Your task to perform on an android device: Show me productivity apps on the Play Store Image 0: 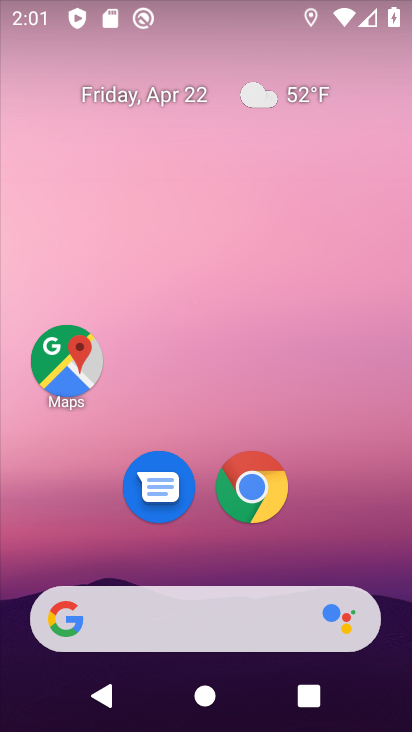
Step 0: drag from (199, 555) to (244, 1)
Your task to perform on an android device: Show me productivity apps on the Play Store Image 1: 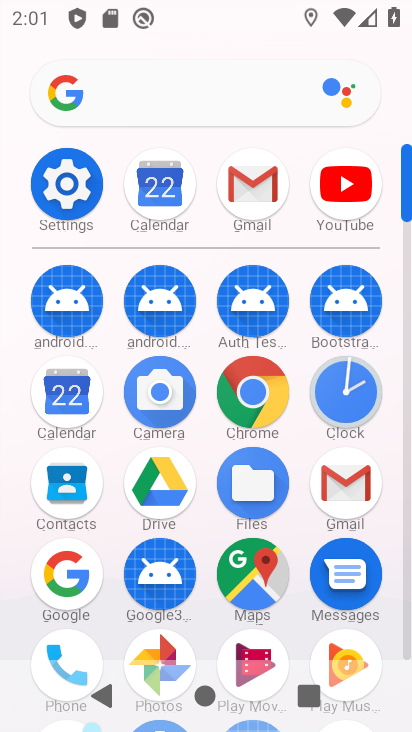
Step 1: drag from (204, 593) to (254, 350)
Your task to perform on an android device: Show me productivity apps on the Play Store Image 2: 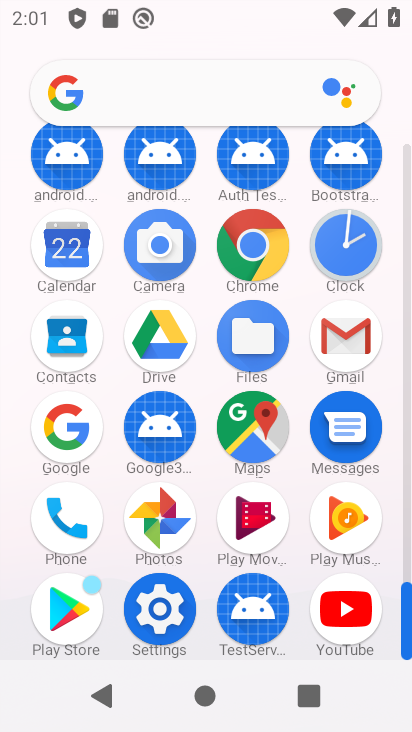
Step 2: click (68, 599)
Your task to perform on an android device: Show me productivity apps on the Play Store Image 3: 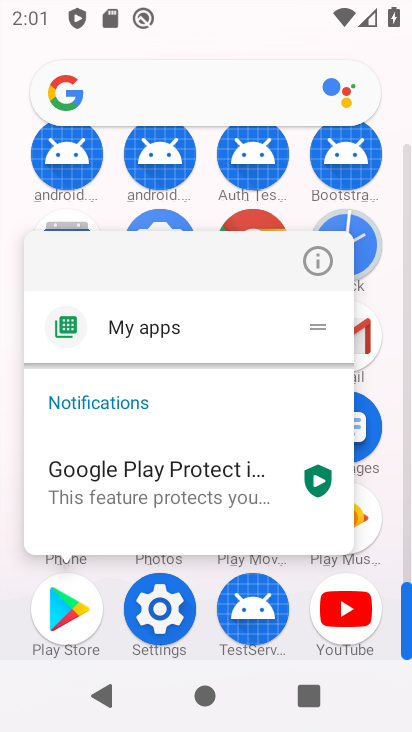
Step 3: click (78, 597)
Your task to perform on an android device: Show me productivity apps on the Play Store Image 4: 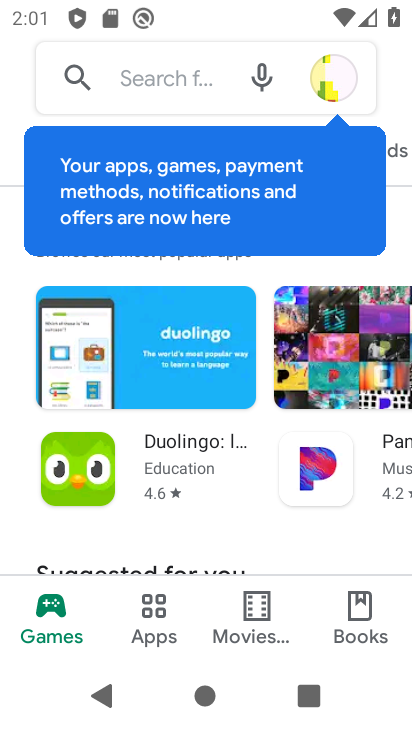
Step 4: click (146, 620)
Your task to perform on an android device: Show me productivity apps on the Play Store Image 5: 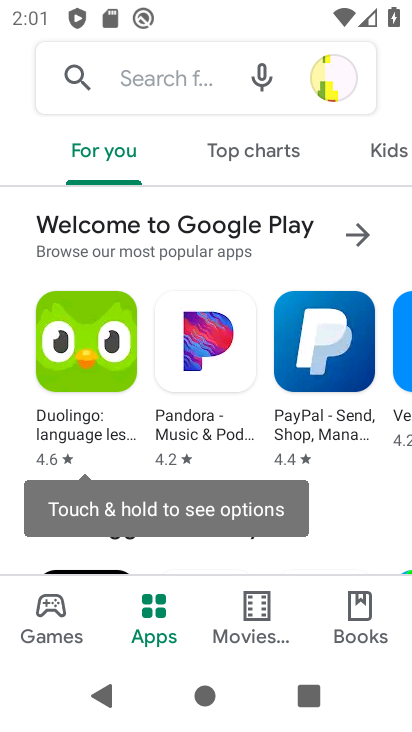
Step 5: drag from (339, 157) to (116, 120)
Your task to perform on an android device: Show me productivity apps on the Play Store Image 6: 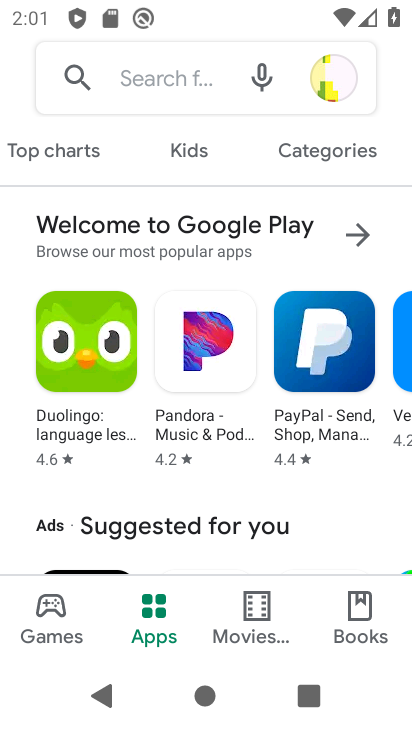
Step 6: drag from (350, 157) to (39, 141)
Your task to perform on an android device: Show me productivity apps on the Play Store Image 7: 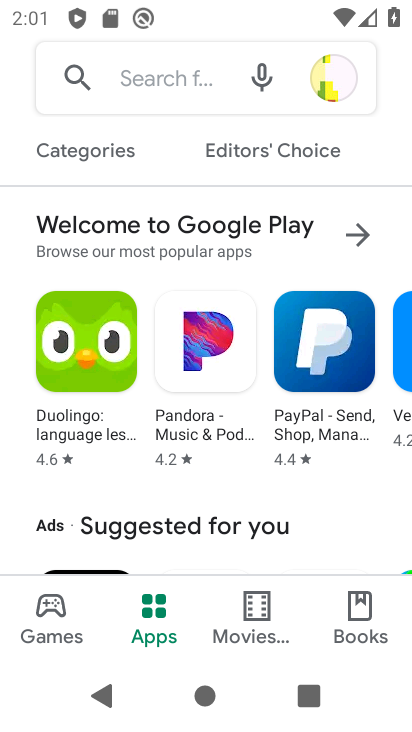
Step 7: drag from (342, 162) to (85, 151)
Your task to perform on an android device: Show me productivity apps on the Play Store Image 8: 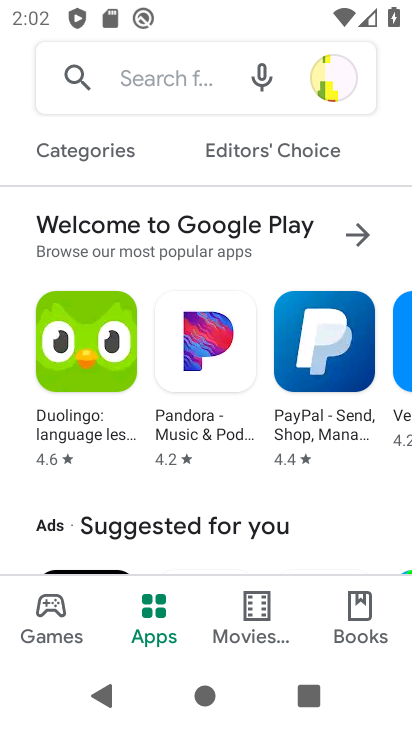
Step 8: click (82, 147)
Your task to perform on an android device: Show me productivity apps on the Play Store Image 9: 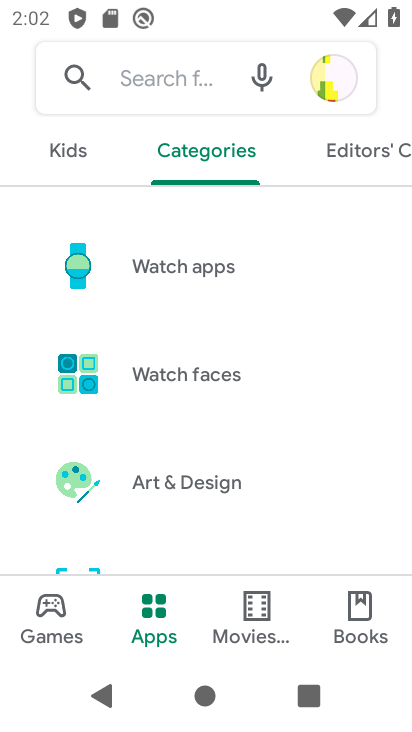
Step 9: drag from (152, 468) to (228, 194)
Your task to perform on an android device: Show me productivity apps on the Play Store Image 10: 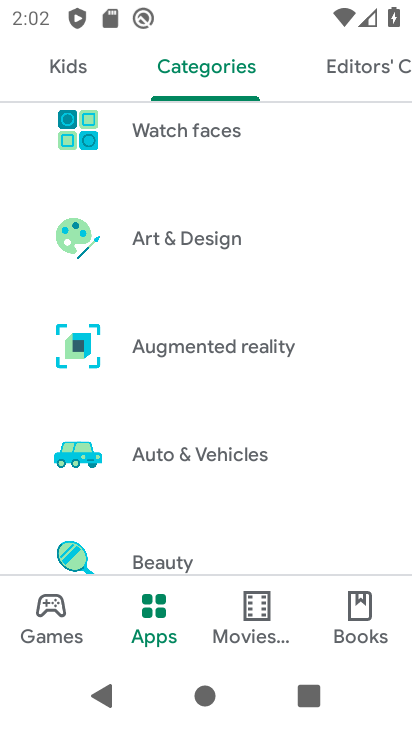
Step 10: drag from (199, 434) to (272, 145)
Your task to perform on an android device: Show me productivity apps on the Play Store Image 11: 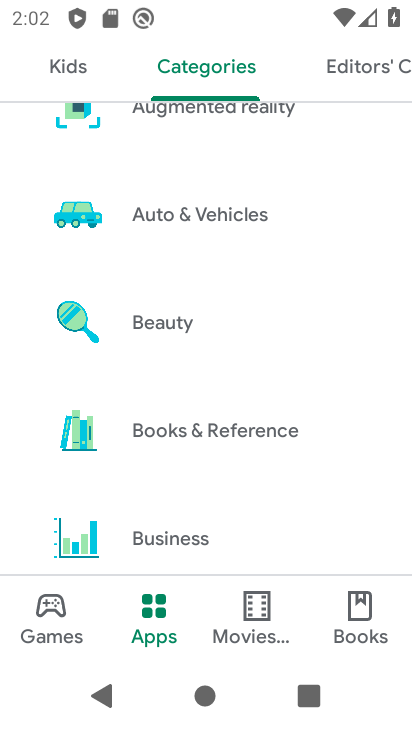
Step 11: drag from (197, 486) to (252, 111)
Your task to perform on an android device: Show me productivity apps on the Play Store Image 12: 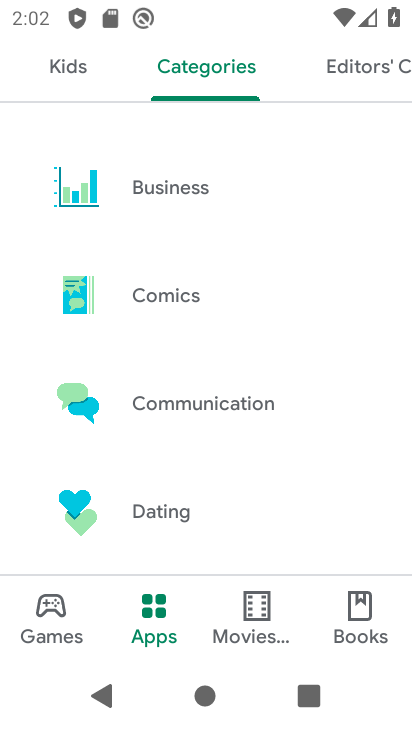
Step 12: drag from (157, 444) to (229, 169)
Your task to perform on an android device: Show me productivity apps on the Play Store Image 13: 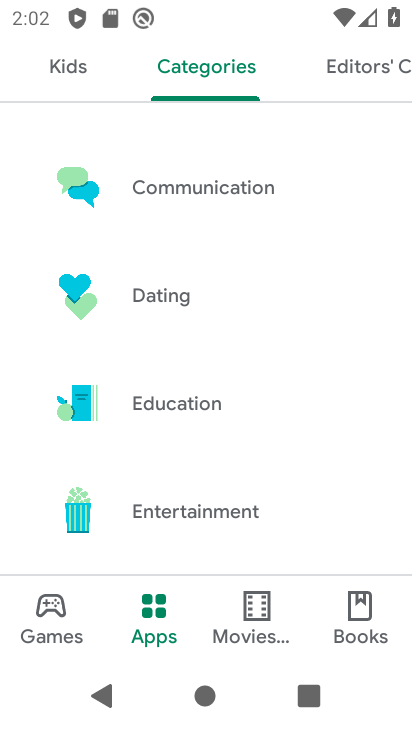
Step 13: drag from (141, 470) to (210, 209)
Your task to perform on an android device: Show me productivity apps on the Play Store Image 14: 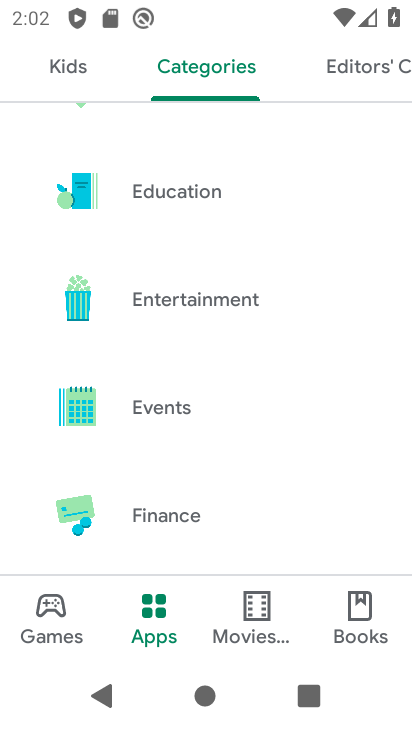
Step 14: drag from (158, 479) to (227, 157)
Your task to perform on an android device: Show me productivity apps on the Play Store Image 15: 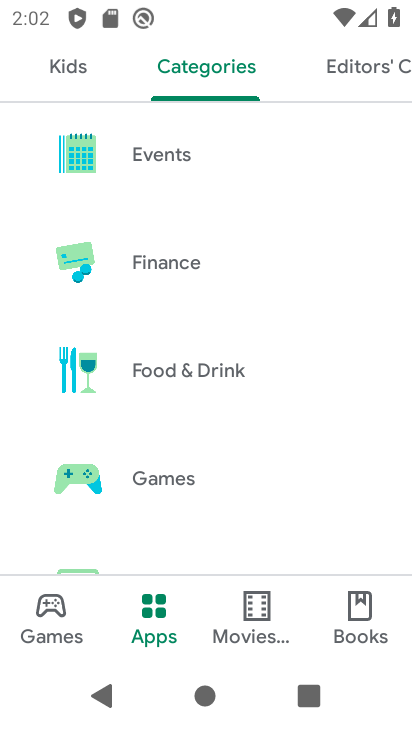
Step 15: drag from (170, 466) to (240, 149)
Your task to perform on an android device: Show me productivity apps on the Play Store Image 16: 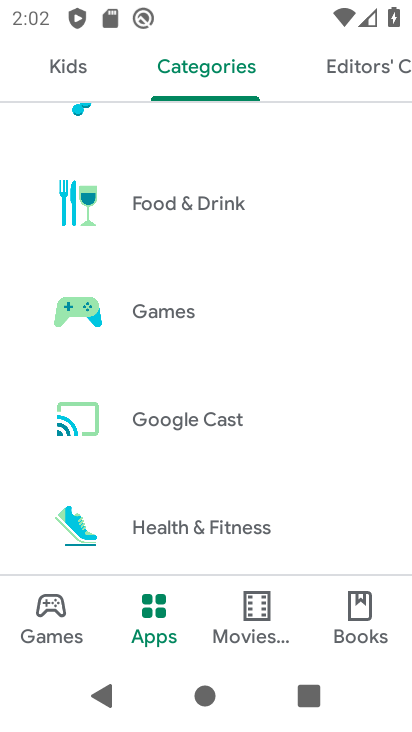
Step 16: drag from (216, 528) to (279, 227)
Your task to perform on an android device: Show me productivity apps on the Play Store Image 17: 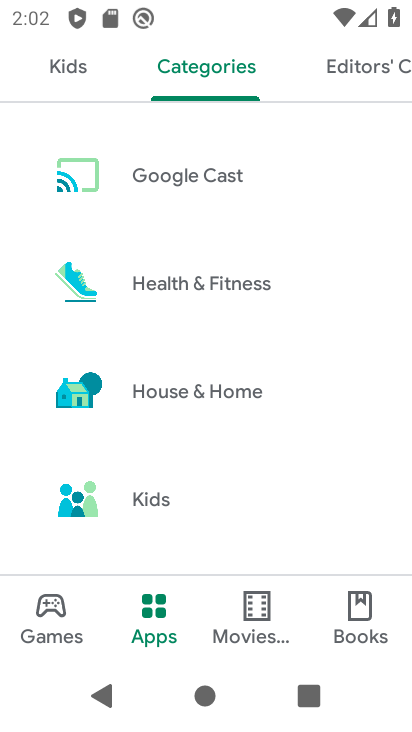
Step 17: drag from (194, 493) to (232, 240)
Your task to perform on an android device: Show me productivity apps on the Play Store Image 18: 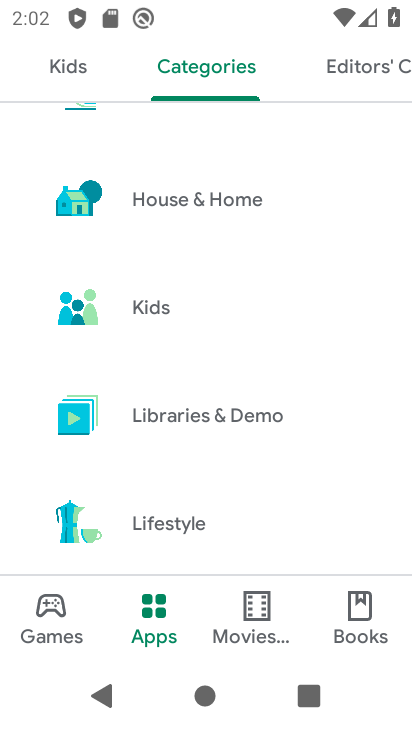
Step 18: drag from (175, 493) to (224, 203)
Your task to perform on an android device: Show me productivity apps on the Play Store Image 19: 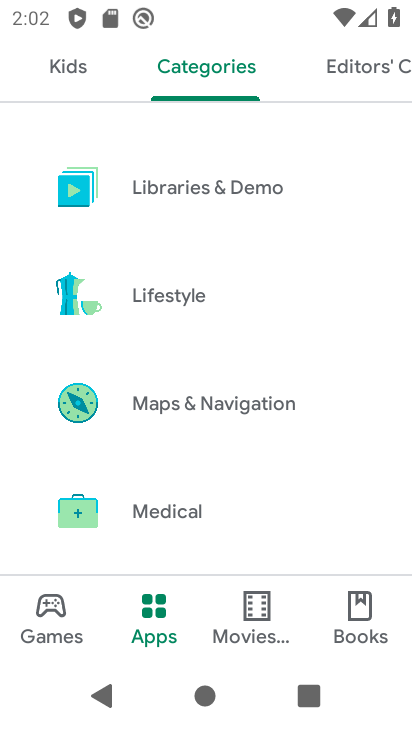
Step 19: drag from (189, 506) to (221, 274)
Your task to perform on an android device: Show me productivity apps on the Play Store Image 20: 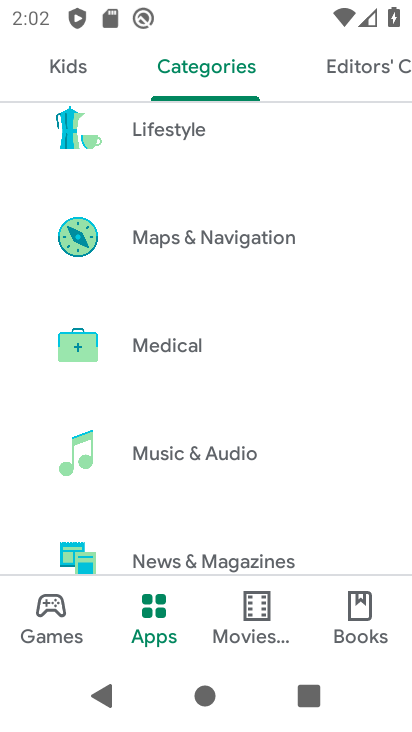
Step 20: drag from (168, 530) to (178, 149)
Your task to perform on an android device: Show me productivity apps on the Play Store Image 21: 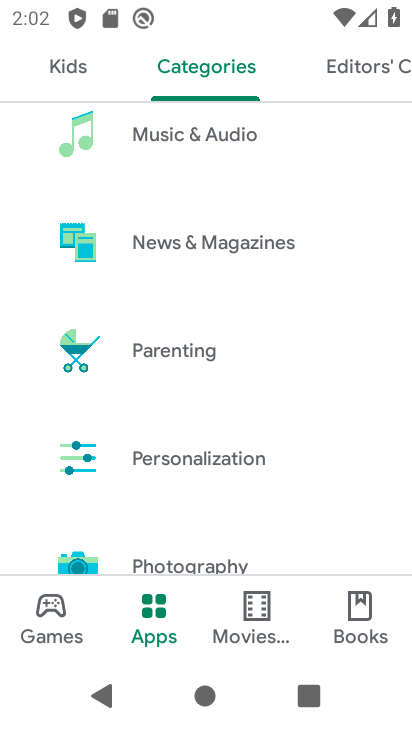
Step 21: drag from (179, 478) to (220, 252)
Your task to perform on an android device: Show me productivity apps on the Play Store Image 22: 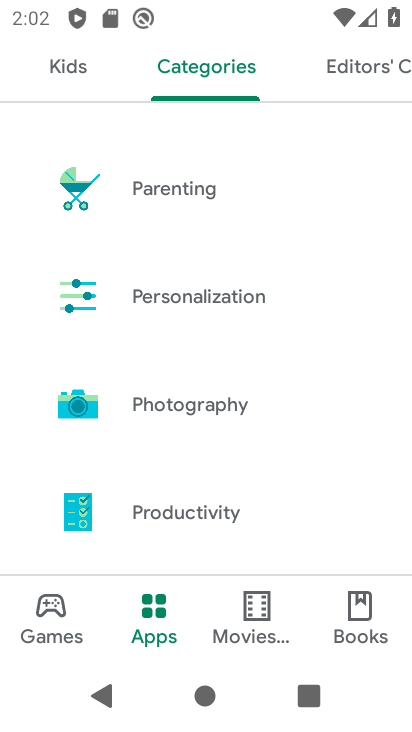
Step 22: click (158, 506)
Your task to perform on an android device: Show me productivity apps on the Play Store Image 23: 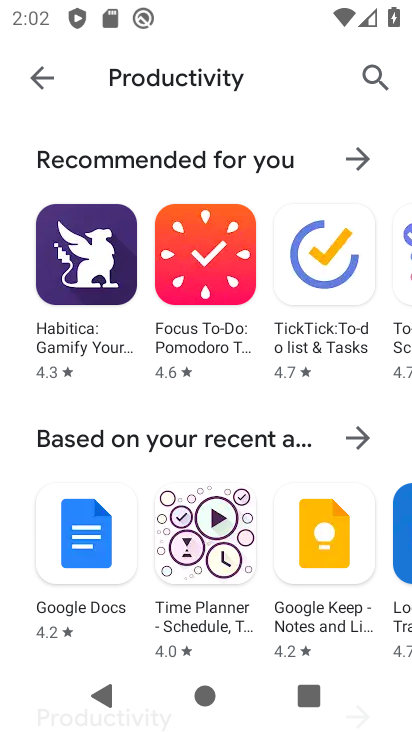
Step 23: task complete